Your task to perform on an android device: allow notifications from all sites in the chrome app Image 0: 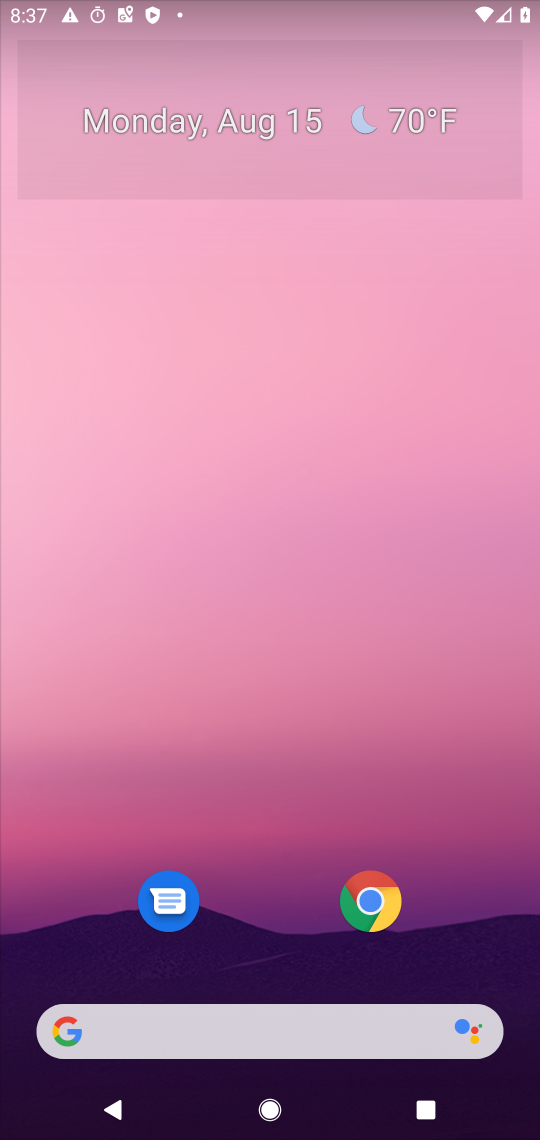
Step 0: drag from (233, 799) to (322, 33)
Your task to perform on an android device: allow notifications from all sites in the chrome app Image 1: 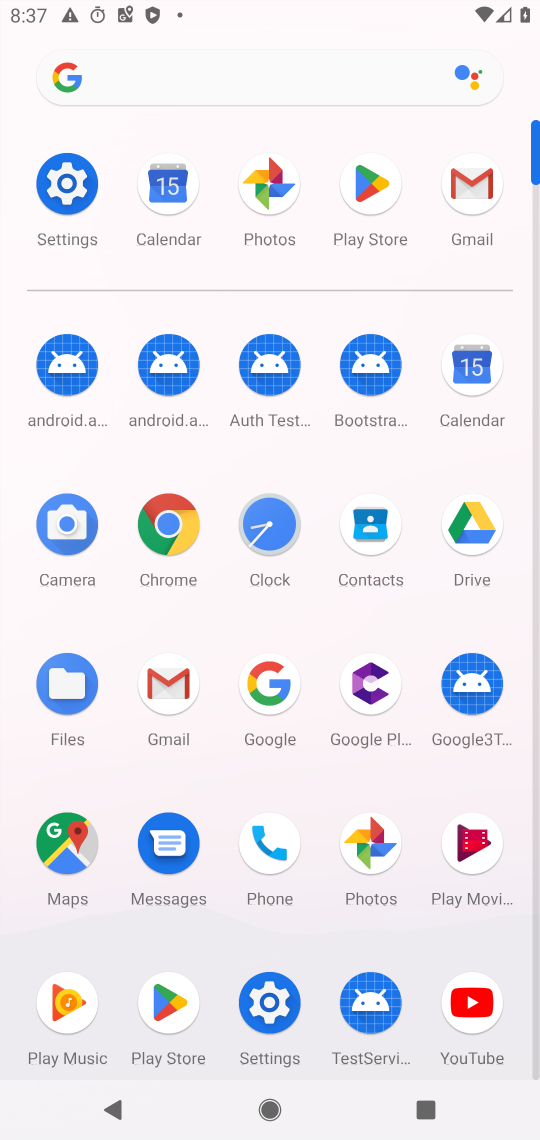
Step 1: click (167, 517)
Your task to perform on an android device: allow notifications from all sites in the chrome app Image 2: 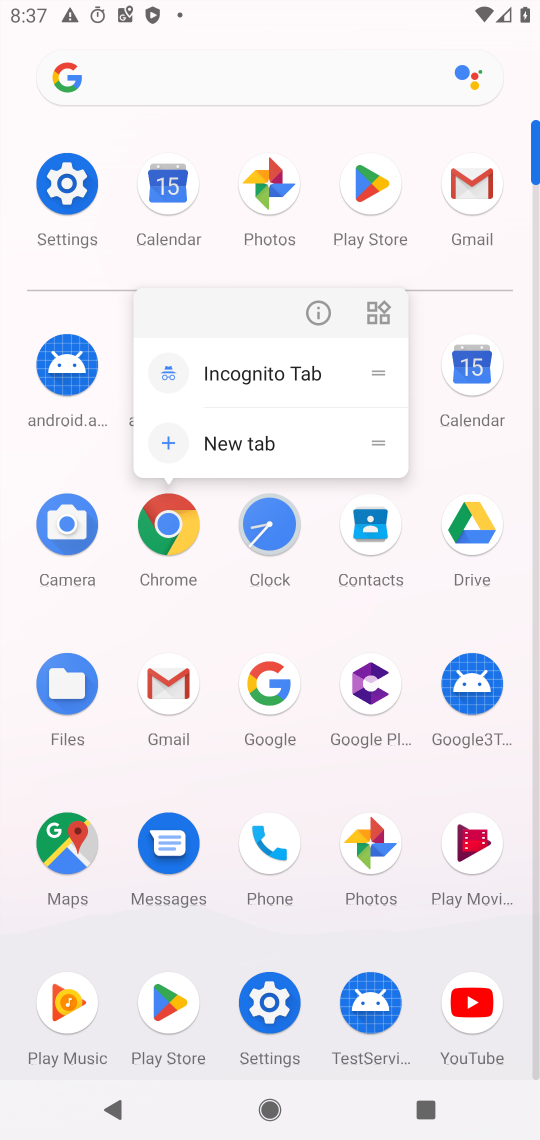
Step 2: click (173, 533)
Your task to perform on an android device: allow notifications from all sites in the chrome app Image 3: 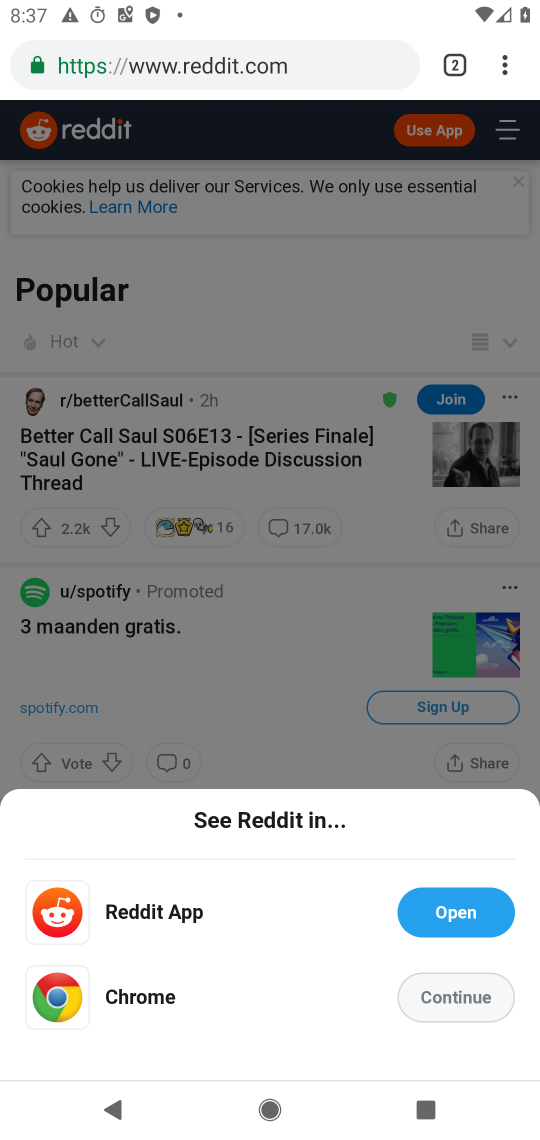
Step 3: click (467, 1008)
Your task to perform on an android device: allow notifications from all sites in the chrome app Image 4: 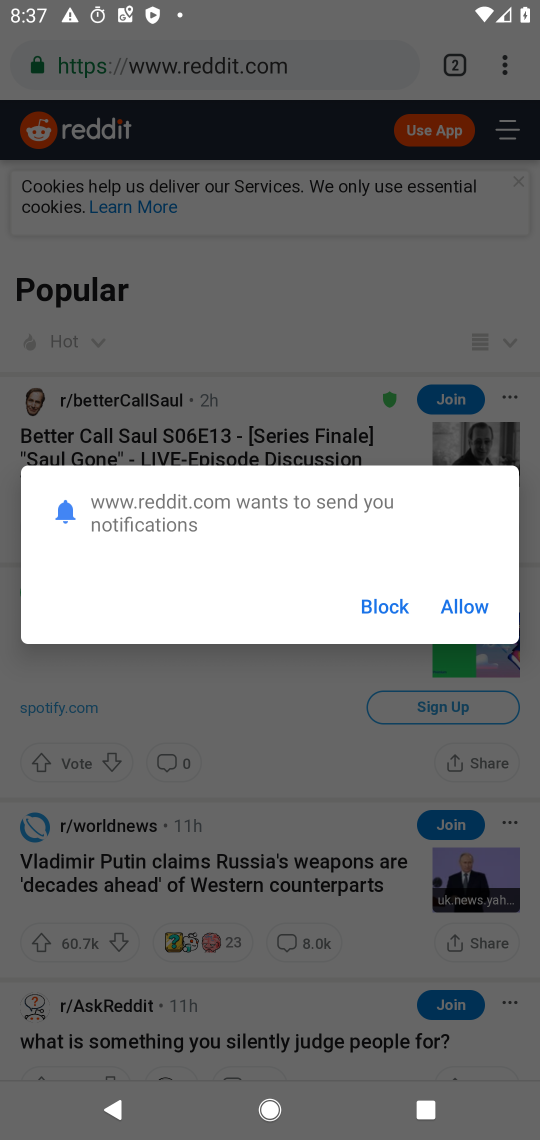
Step 4: click (377, 596)
Your task to perform on an android device: allow notifications from all sites in the chrome app Image 5: 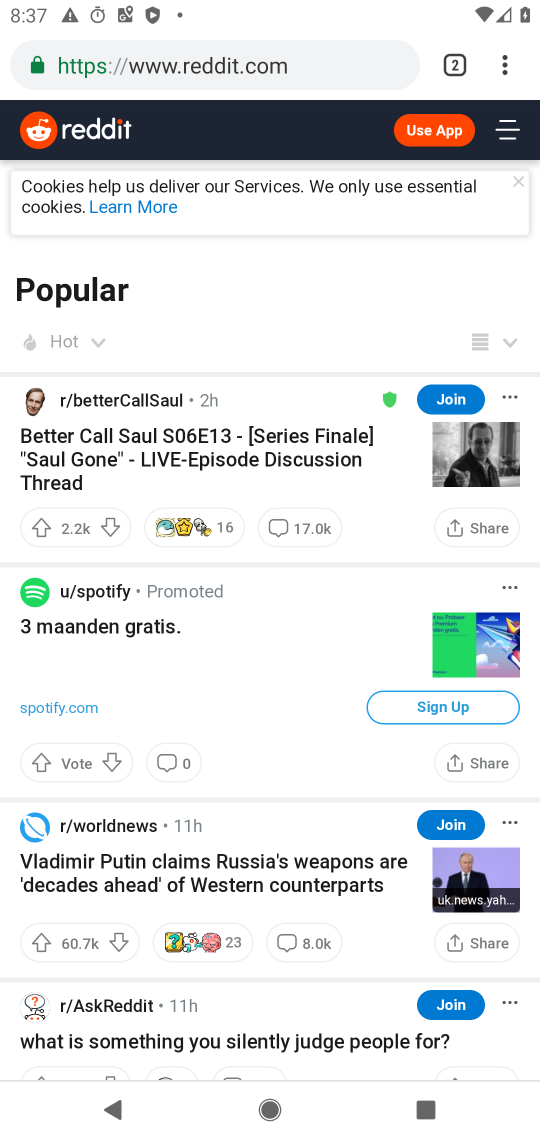
Step 5: click (502, 55)
Your task to perform on an android device: allow notifications from all sites in the chrome app Image 6: 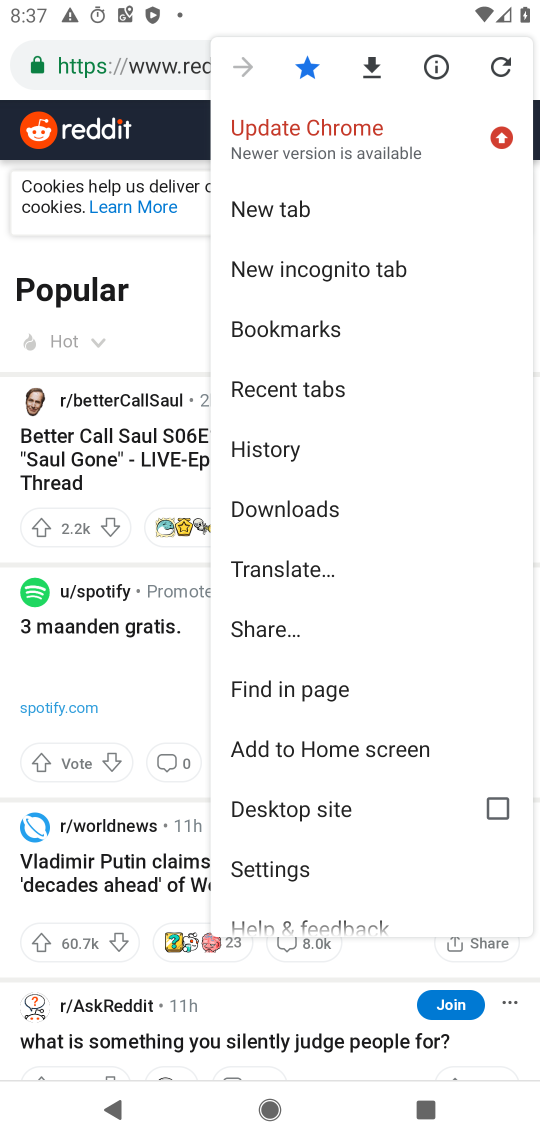
Step 6: click (274, 868)
Your task to perform on an android device: allow notifications from all sites in the chrome app Image 7: 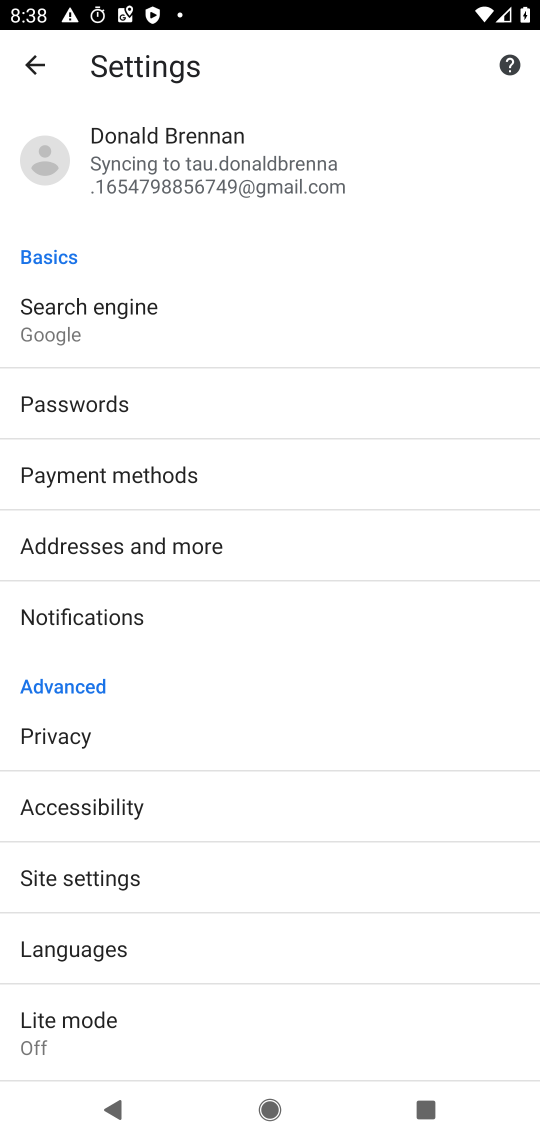
Step 7: click (123, 619)
Your task to perform on an android device: allow notifications from all sites in the chrome app Image 8: 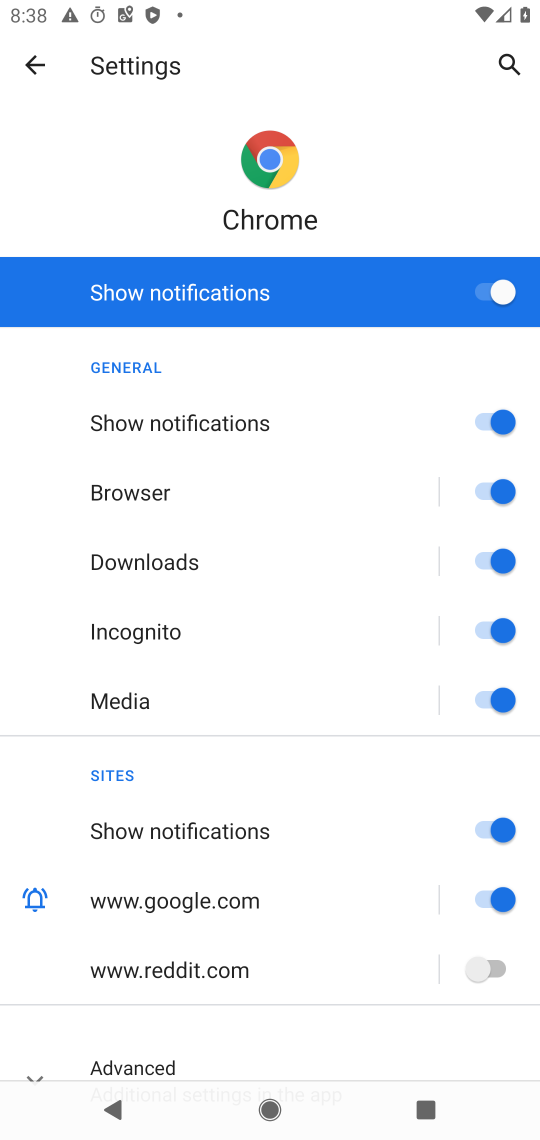
Step 8: task complete